Your task to perform on an android device: Open my contact list Image 0: 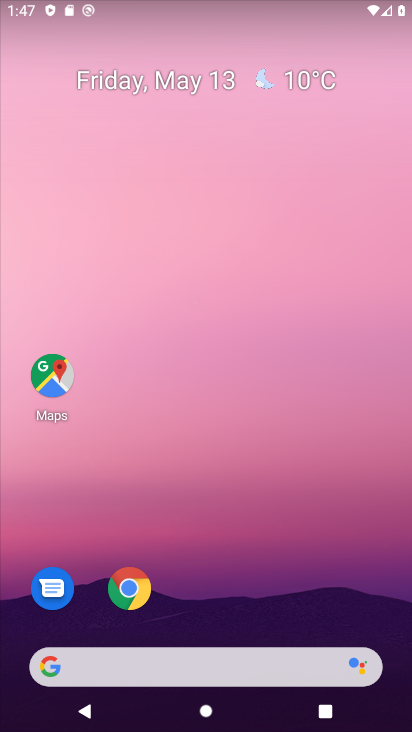
Step 0: drag from (221, 603) to (225, 148)
Your task to perform on an android device: Open my contact list Image 1: 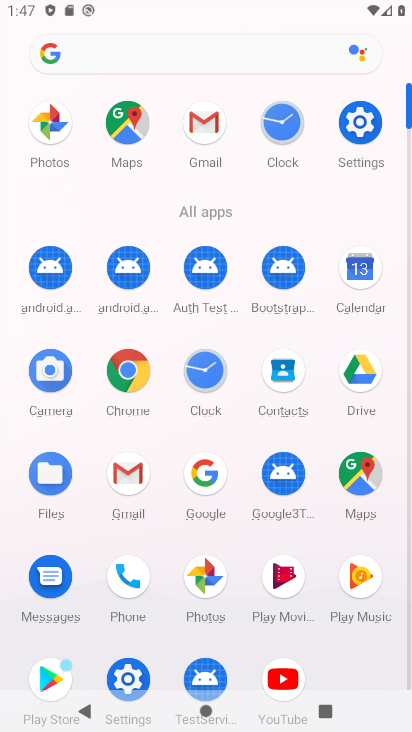
Step 1: click (284, 373)
Your task to perform on an android device: Open my contact list Image 2: 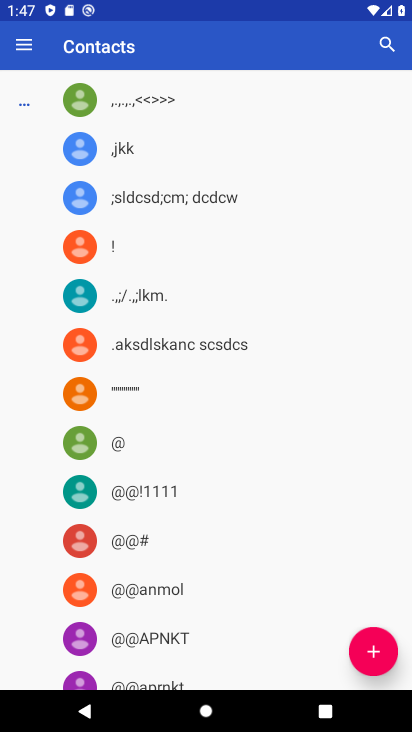
Step 2: task complete